Your task to perform on an android device: Open maps Image 0: 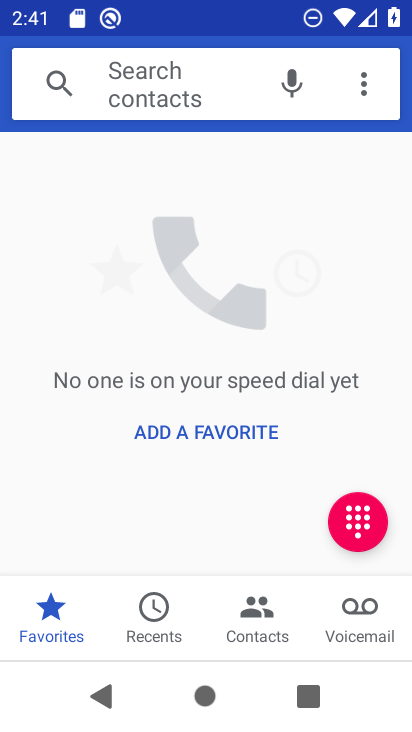
Step 0: press back button
Your task to perform on an android device: Open maps Image 1: 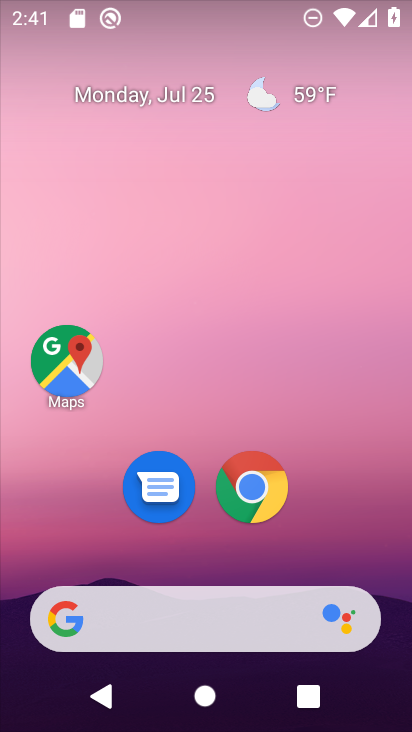
Step 1: click (1, 344)
Your task to perform on an android device: Open maps Image 2: 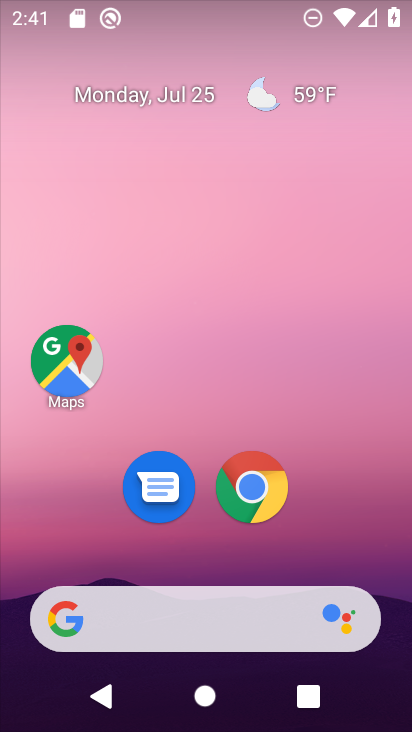
Step 2: click (53, 353)
Your task to perform on an android device: Open maps Image 3: 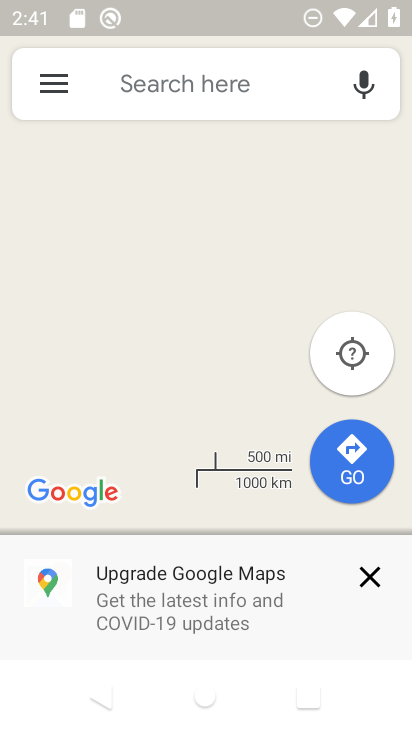
Step 3: task complete